Your task to perform on an android device: Go to network settings Image 0: 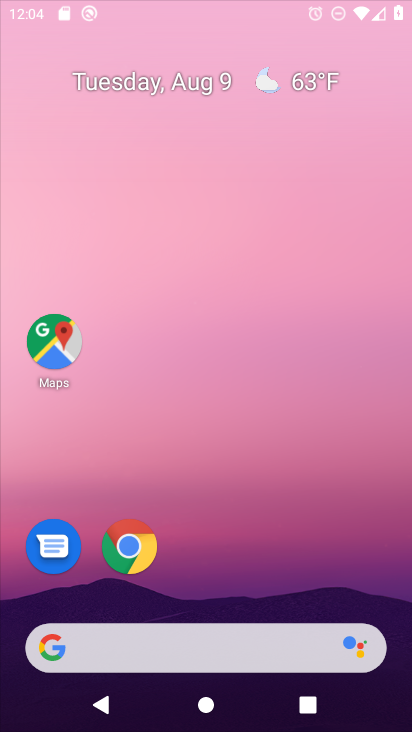
Step 0: press home button
Your task to perform on an android device: Go to network settings Image 1: 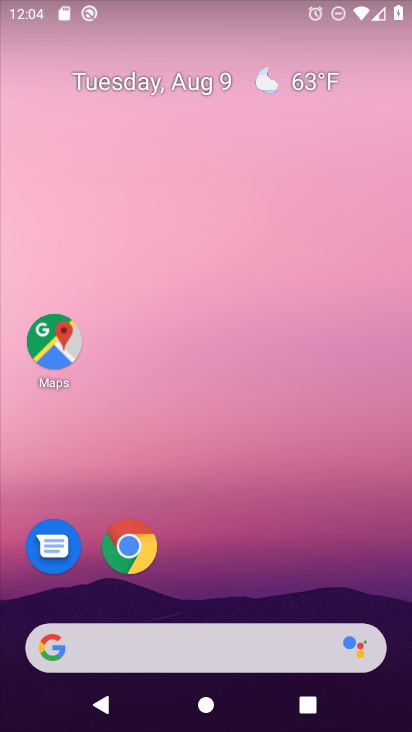
Step 1: drag from (223, 606) to (239, 113)
Your task to perform on an android device: Go to network settings Image 2: 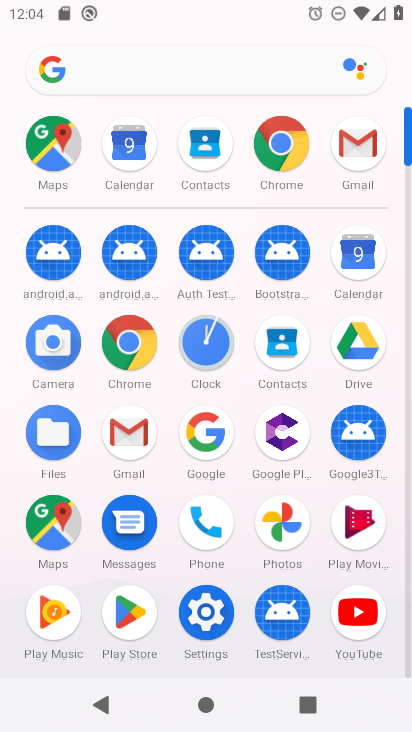
Step 2: click (203, 605)
Your task to perform on an android device: Go to network settings Image 3: 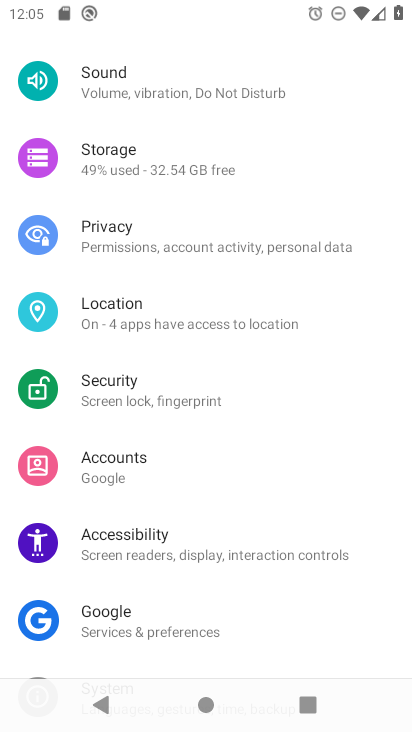
Step 3: drag from (163, 130) to (178, 636)
Your task to perform on an android device: Go to network settings Image 4: 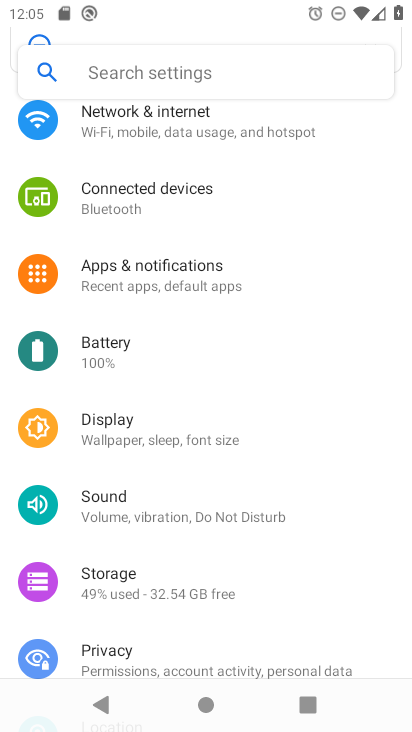
Step 4: drag from (146, 177) to (158, 575)
Your task to perform on an android device: Go to network settings Image 5: 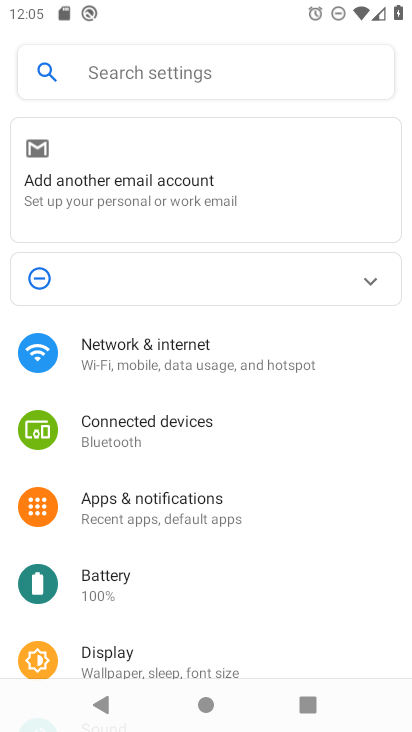
Step 5: click (189, 352)
Your task to perform on an android device: Go to network settings Image 6: 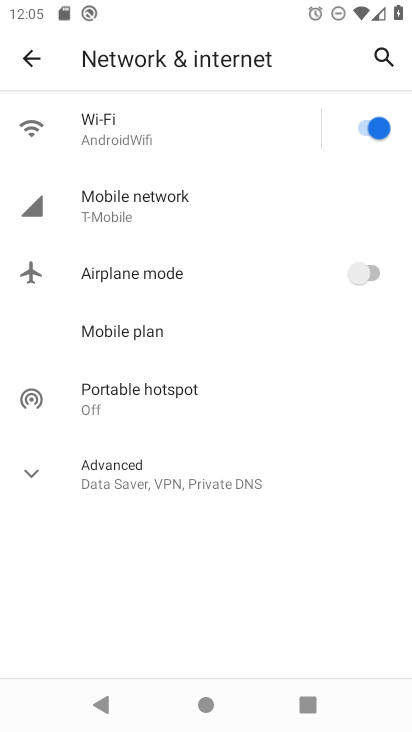
Step 6: click (27, 465)
Your task to perform on an android device: Go to network settings Image 7: 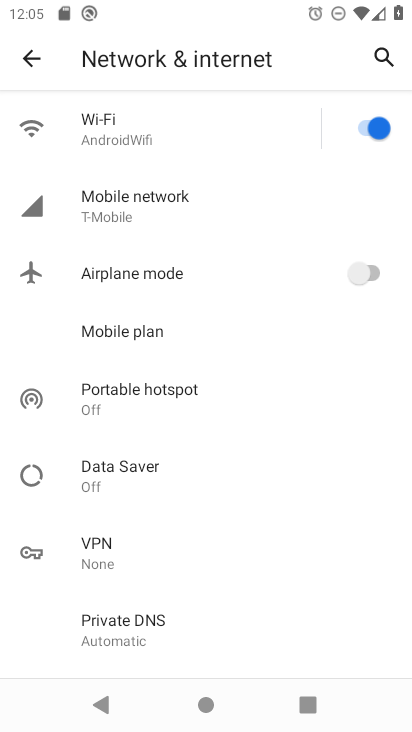
Step 7: task complete